Your task to perform on an android device: turn off location Image 0: 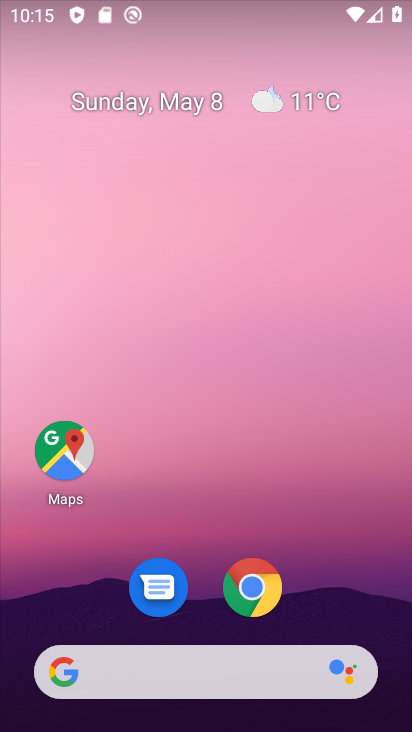
Step 0: drag from (194, 663) to (226, 322)
Your task to perform on an android device: turn off location Image 1: 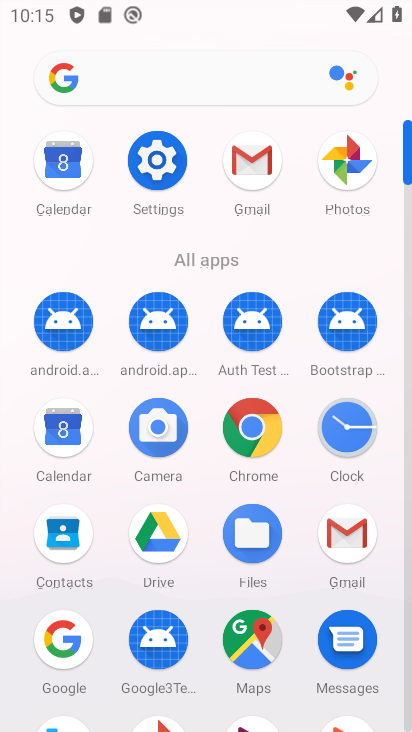
Step 1: click (163, 179)
Your task to perform on an android device: turn off location Image 2: 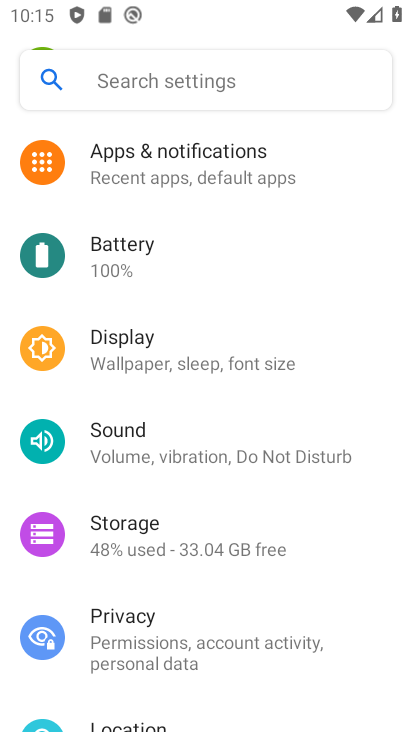
Step 2: drag from (154, 646) to (228, 330)
Your task to perform on an android device: turn off location Image 3: 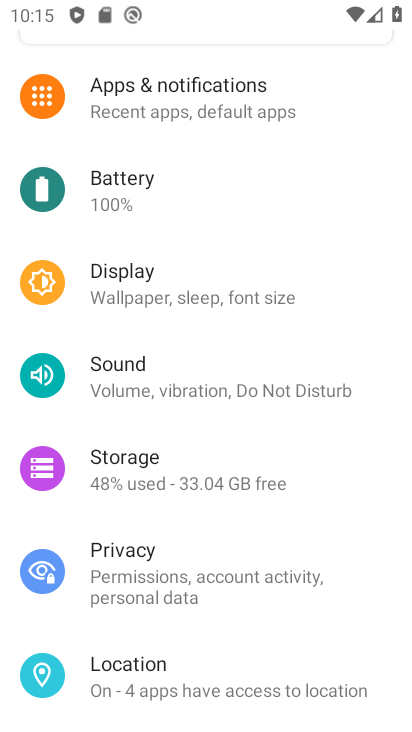
Step 3: click (128, 666)
Your task to perform on an android device: turn off location Image 4: 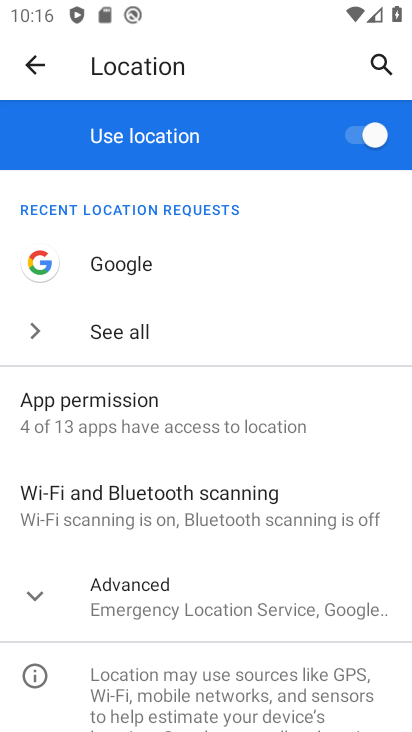
Step 4: click (370, 135)
Your task to perform on an android device: turn off location Image 5: 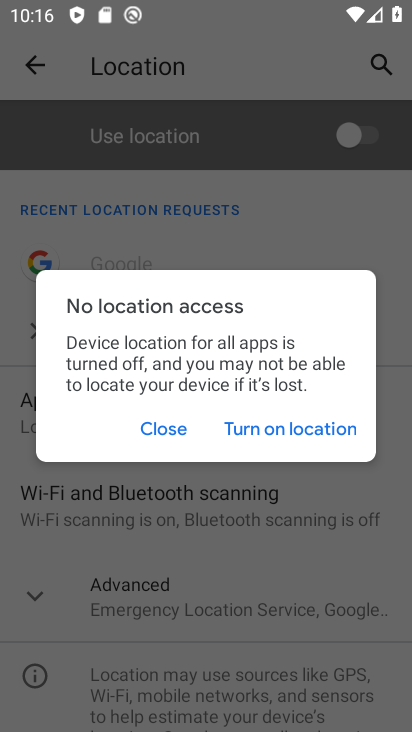
Step 5: click (165, 429)
Your task to perform on an android device: turn off location Image 6: 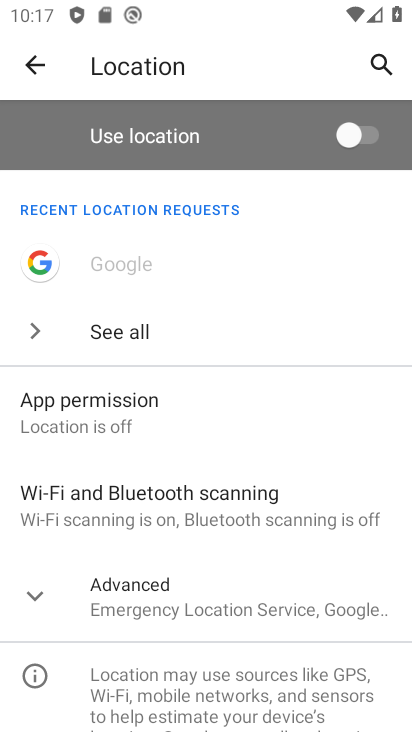
Step 6: press home button
Your task to perform on an android device: turn off location Image 7: 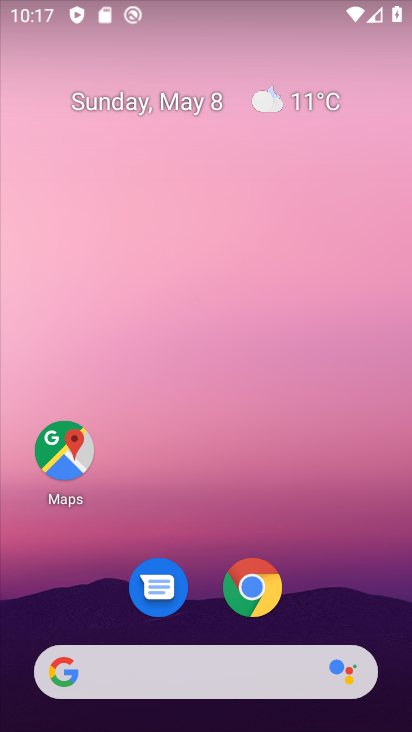
Step 7: drag from (183, 654) to (156, 0)
Your task to perform on an android device: turn off location Image 8: 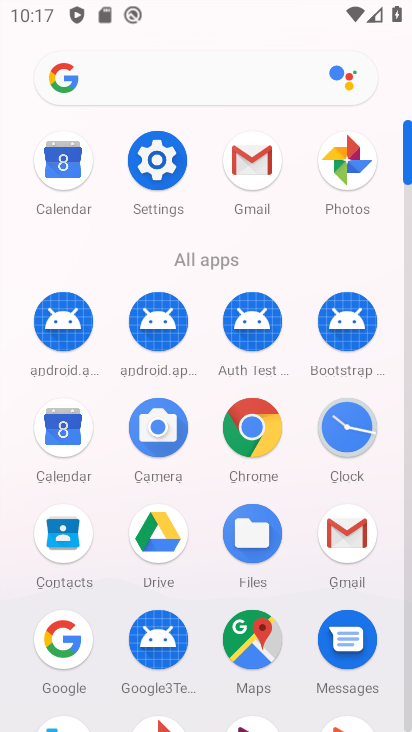
Step 8: click (153, 156)
Your task to perform on an android device: turn off location Image 9: 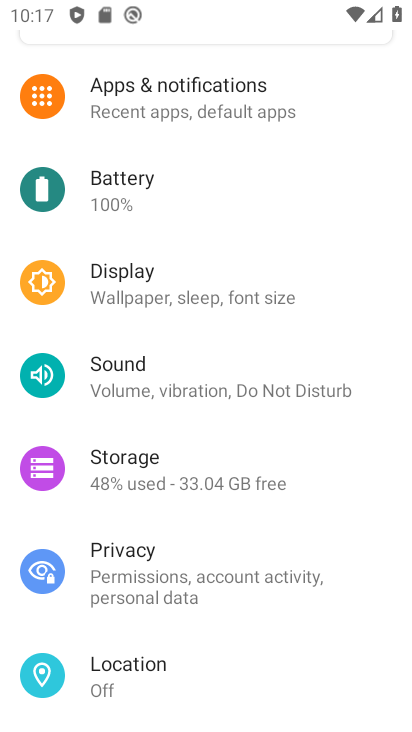
Step 9: click (140, 692)
Your task to perform on an android device: turn off location Image 10: 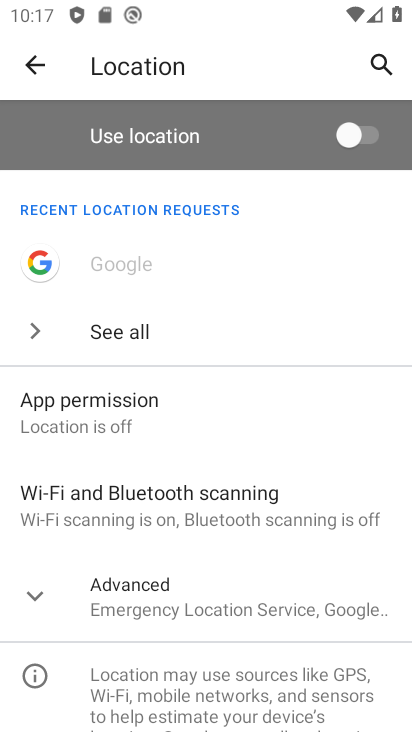
Step 10: task complete